Your task to perform on an android device: open chrome and create a bookmark for the current page Image 0: 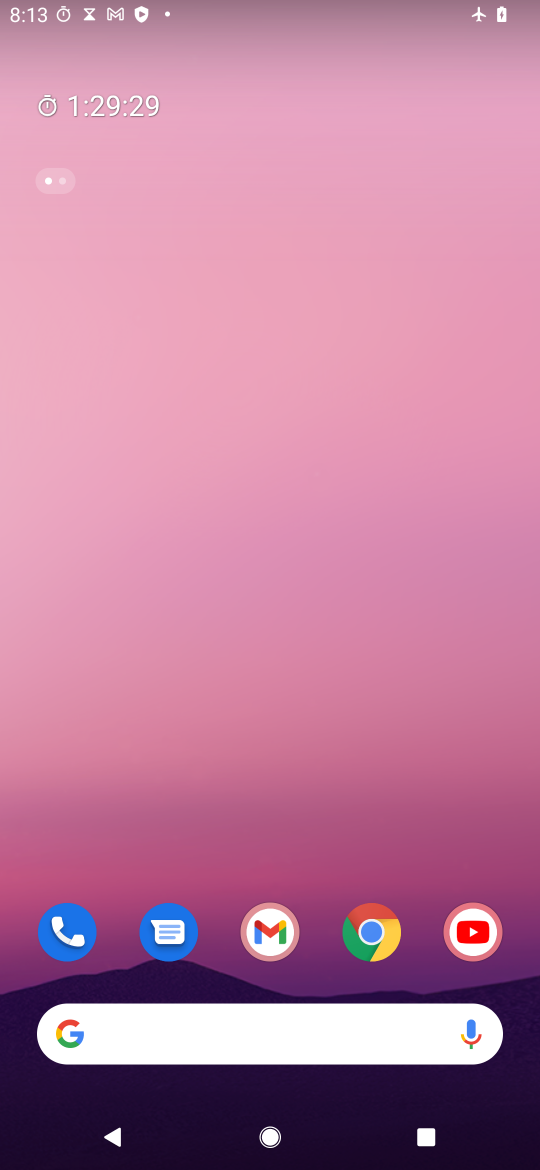
Step 0: drag from (317, 867) to (354, 76)
Your task to perform on an android device: open chrome and create a bookmark for the current page Image 1: 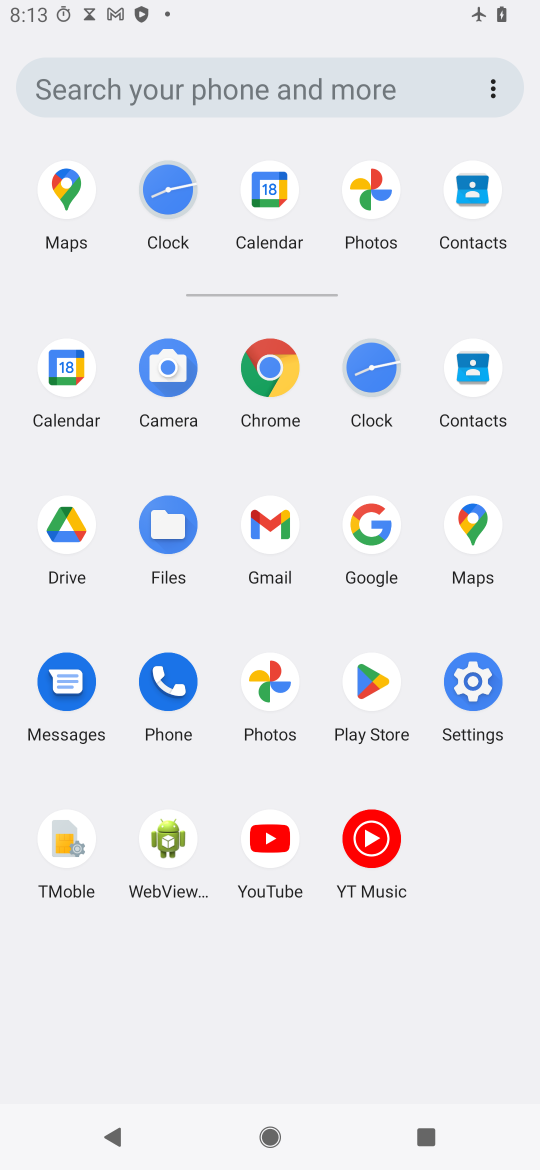
Step 1: click (259, 367)
Your task to perform on an android device: open chrome and create a bookmark for the current page Image 2: 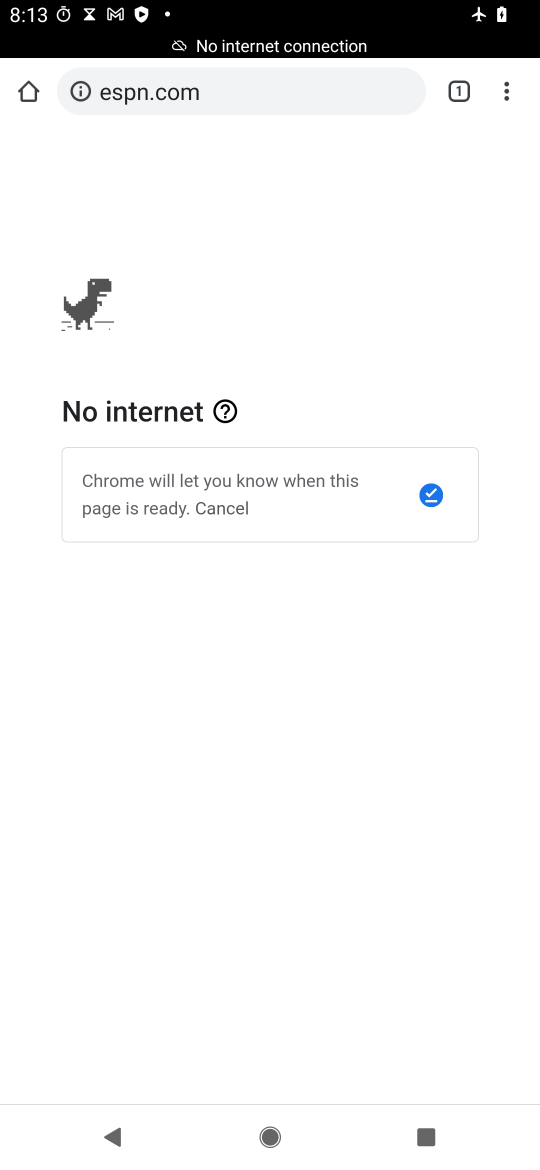
Step 2: drag from (371, 9) to (242, 767)
Your task to perform on an android device: open chrome and create a bookmark for the current page Image 3: 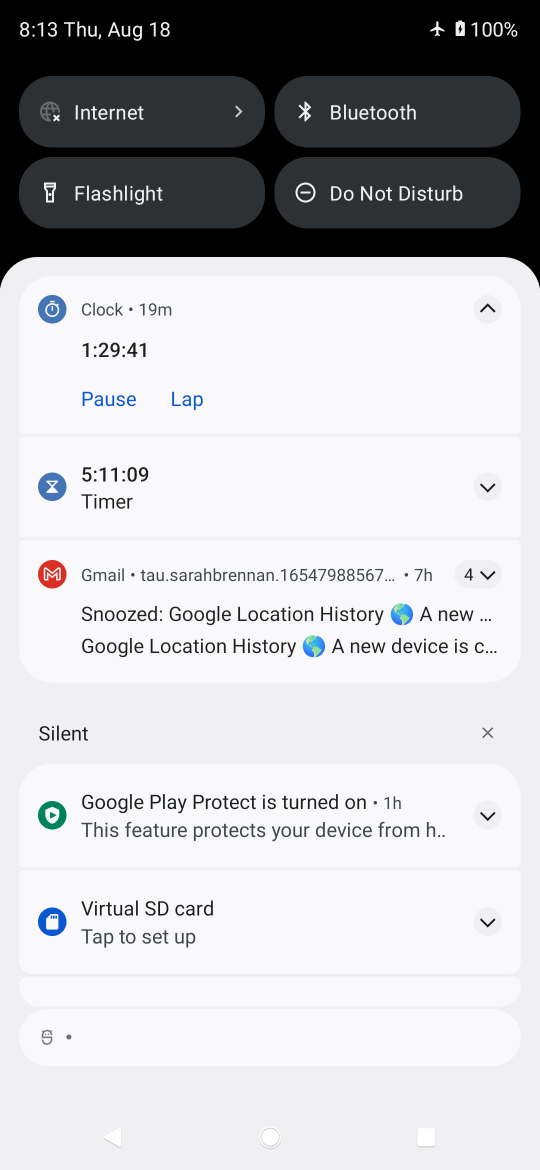
Step 3: drag from (379, 144) to (293, 867)
Your task to perform on an android device: open chrome and create a bookmark for the current page Image 4: 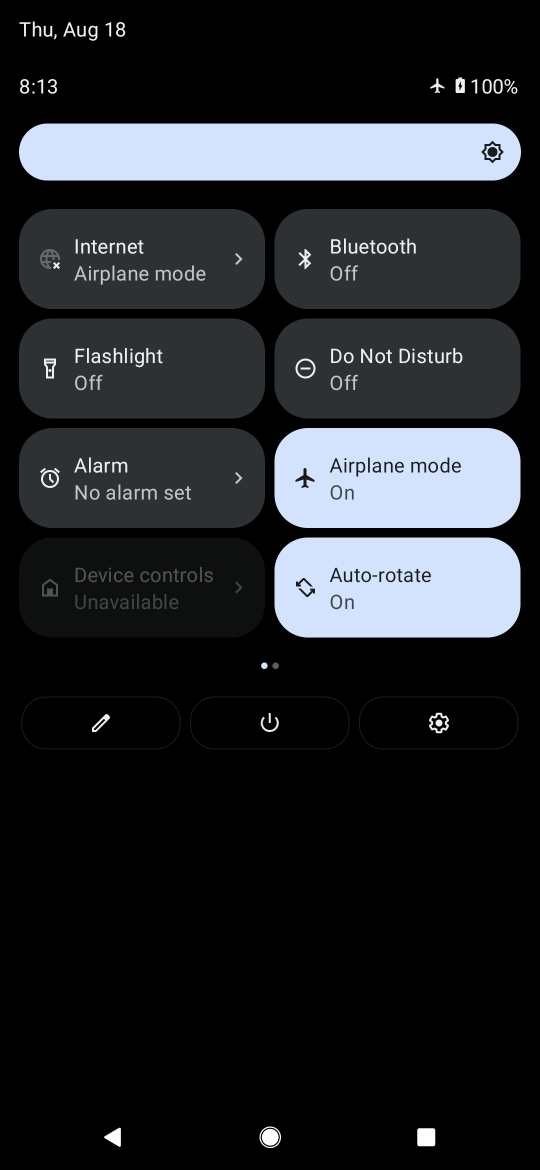
Step 4: click (373, 477)
Your task to perform on an android device: open chrome and create a bookmark for the current page Image 5: 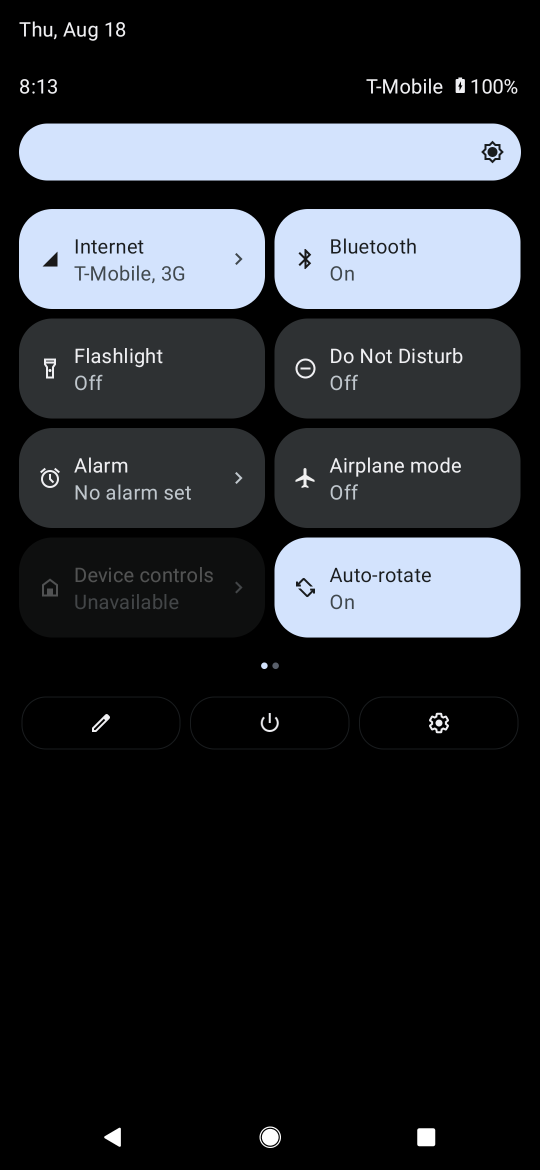
Step 5: task complete